Your task to perform on an android device: turn on the 24-hour format for clock Image 0: 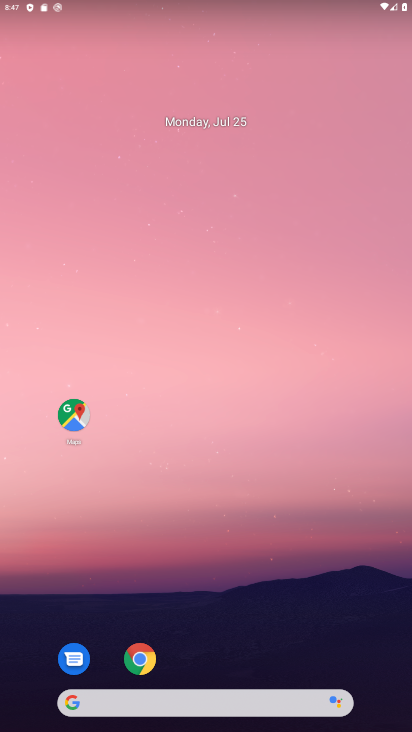
Step 0: drag from (230, 638) to (256, 217)
Your task to perform on an android device: turn on the 24-hour format for clock Image 1: 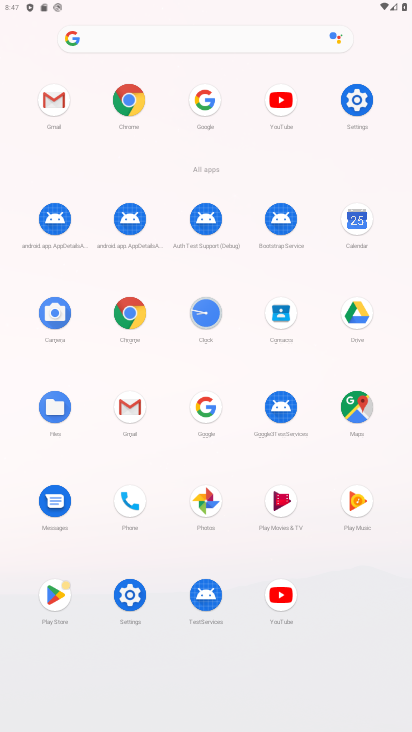
Step 1: click (212, 314)
Your task to perform on an android device: turn on the 24-hour format for clock Image 2: 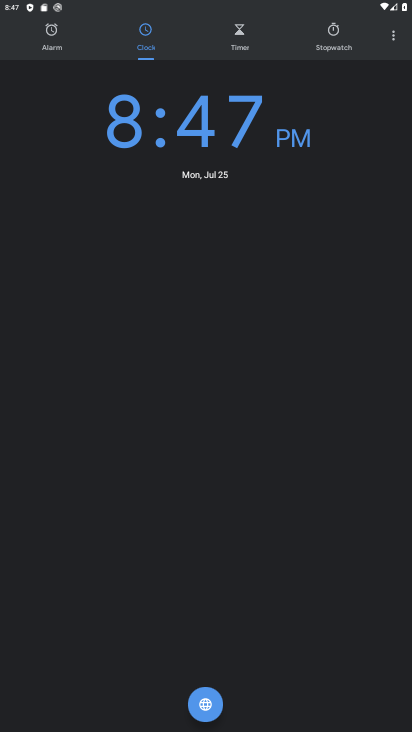
Step 2: press home button
Your task to perform on an android device: turn on the 24-hour format for clock Image 3: 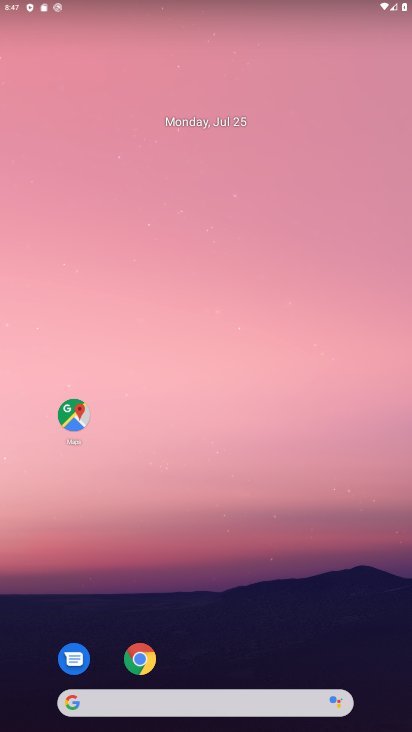
Step 3: drag from (222, 643) to (284, 175)
Your task to perform on an android device: turn on the 24-hour format for clock Image 4: 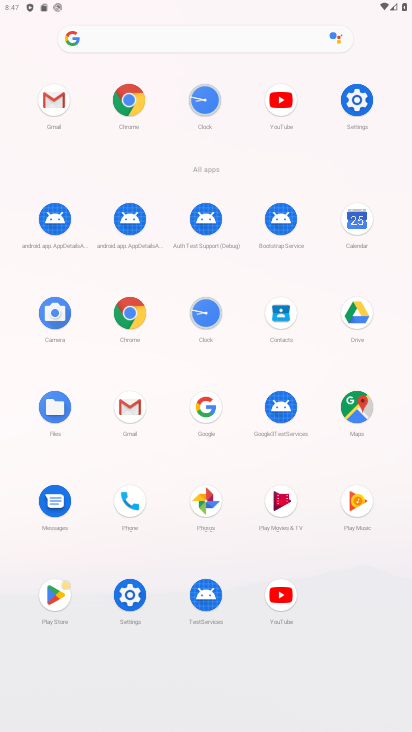
Step 4: click (192, 333)
Your task to perform on an android device: turn on the 24-hour format for clock Image 5: 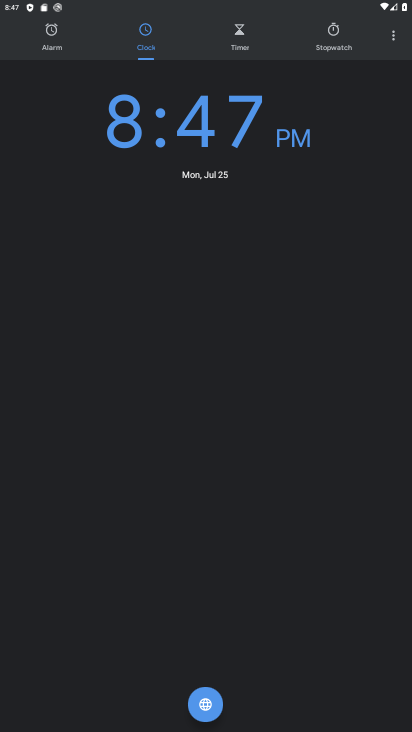
Step 5: click (396, 32)
Your task to perform on an android device: turn on the 24-hour format for clock Image 6: 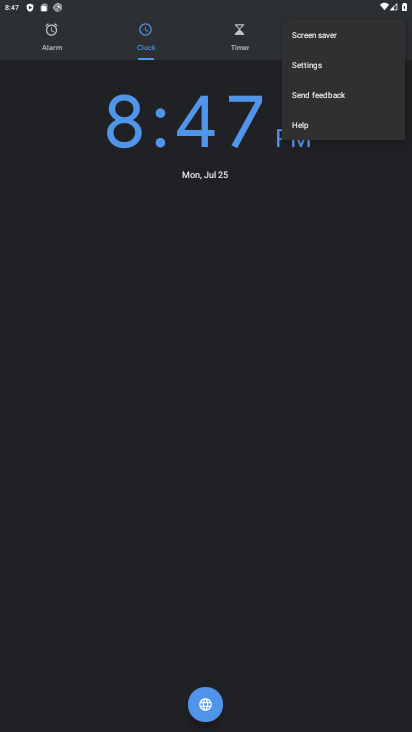
Step 6: click (336, 67)
Your task to perform on an android device: turn on the 24-hour format for clock Image 7: 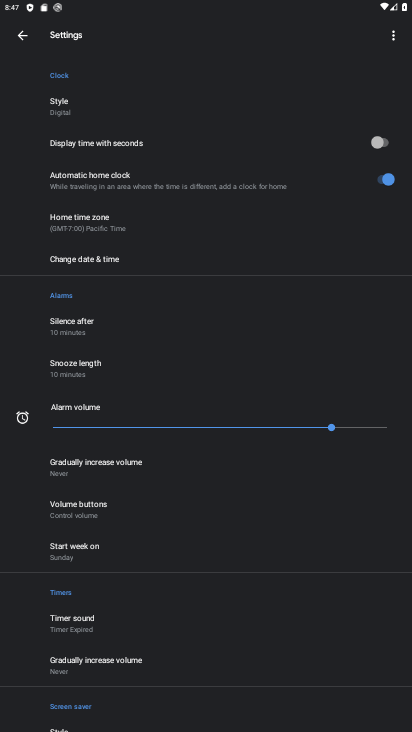
Step 7: click (185, 258)
Your task to perform on an android device: turn on the 24-hour format for clock Image 8: 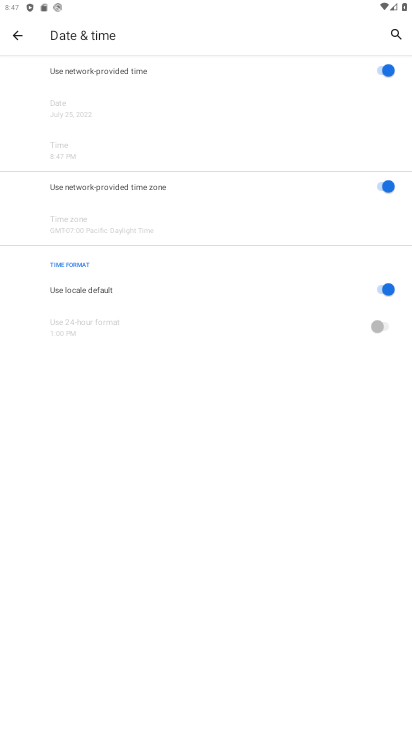
Step 8: click (383, 288)
Your task to perform on an android device: turn on the 24-hour format for clock Image 9: 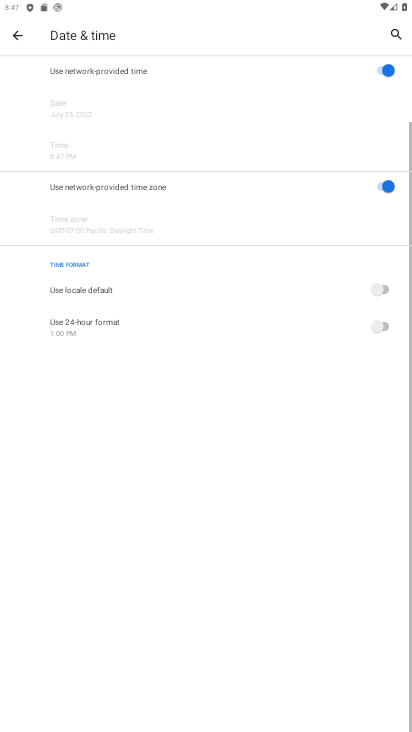
Step 9: click (386, 325)
Your task to perform on an android device: turn on the 24-hour format for clock Image 10: 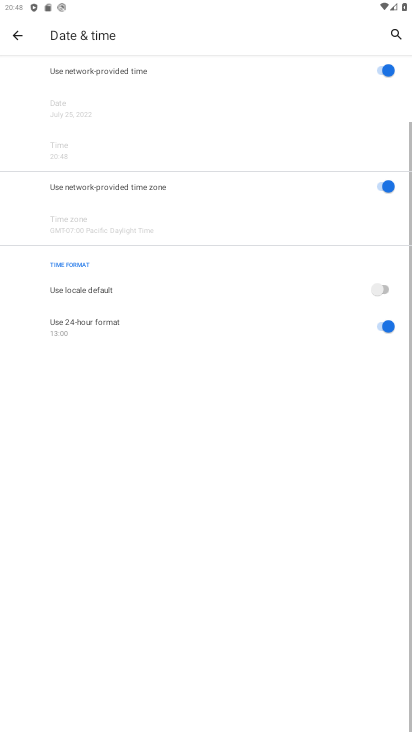
Step 10: task complete